Your task to perform on an android device: Go to accessibility settings Image 0: 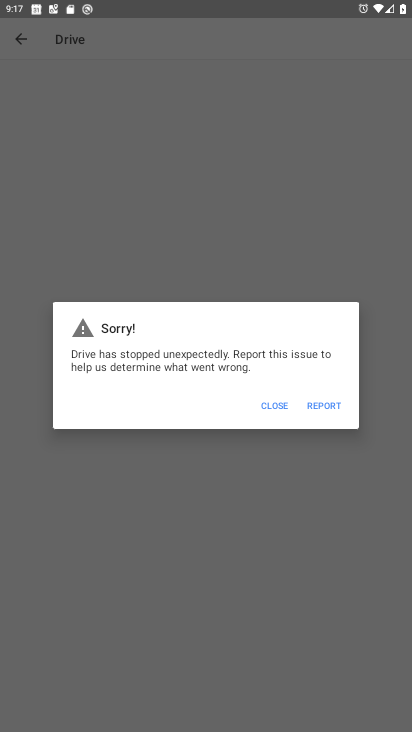
Step 0: press home button
Your task to perform on an android device: Go to accessibility settings Image 1: 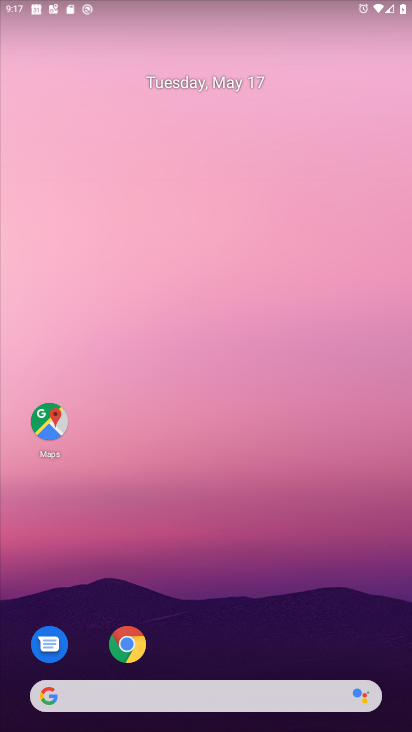
Step 1: drag from (215, 646) to (171, 91)
Your task to perform on an android device: Go to accessibility settings Image 2: 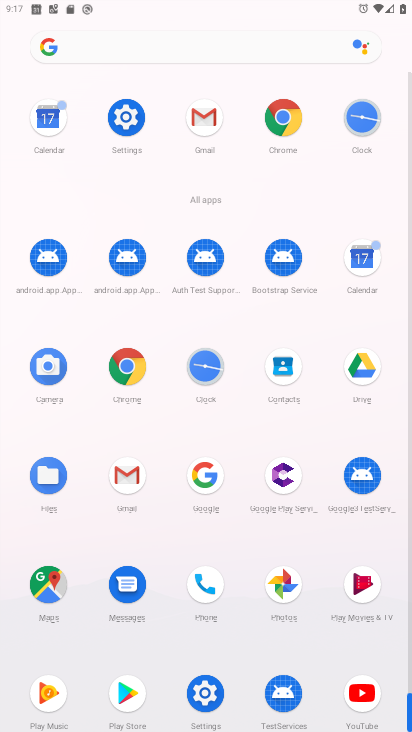
Step 2: click (126, 117)
Your task to perform on an android device: Go to accessibility settings Image 3: 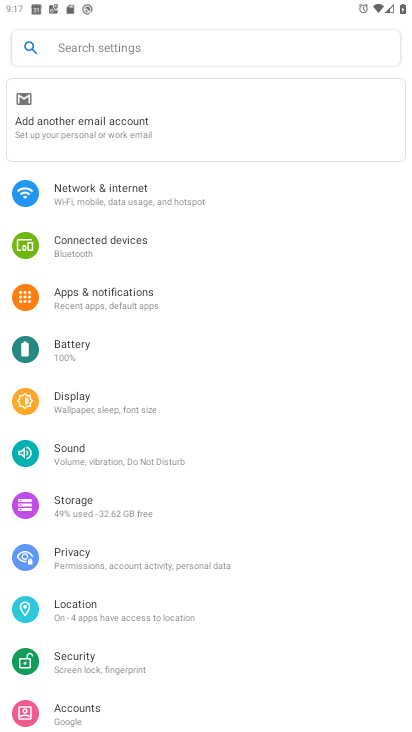
Step 3: drag from (158, 671) to (133, 148)
Your task to perform on an android device: Go to accessibility settings Image 4: 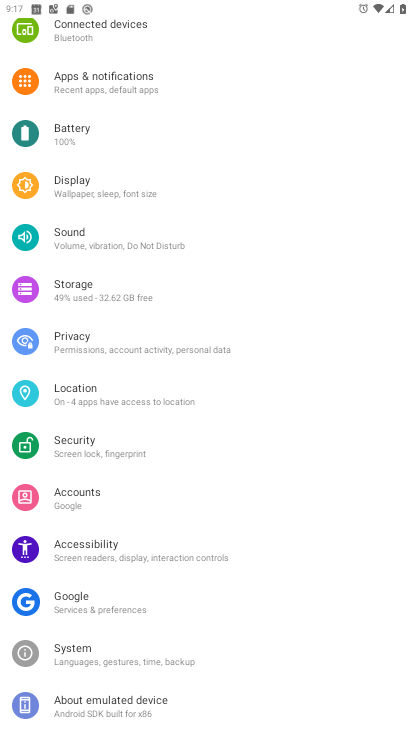
Step 4: click (128, 543)
Your task to perform on an android device: Go to accessibility settings Image 5: 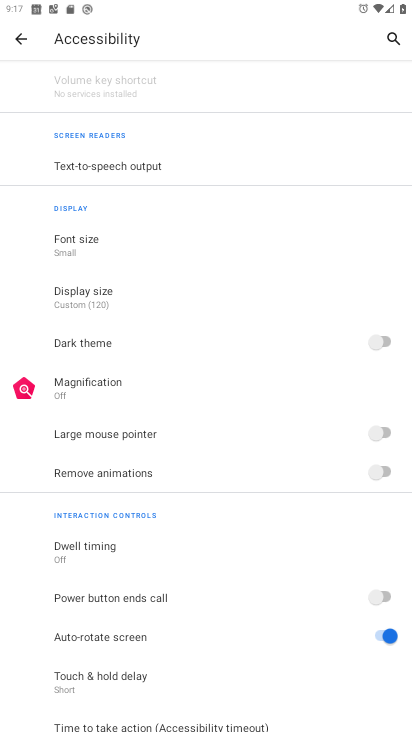
Step 5: task complete